Your task to perform on an android device: turn notification dots on Image 0: 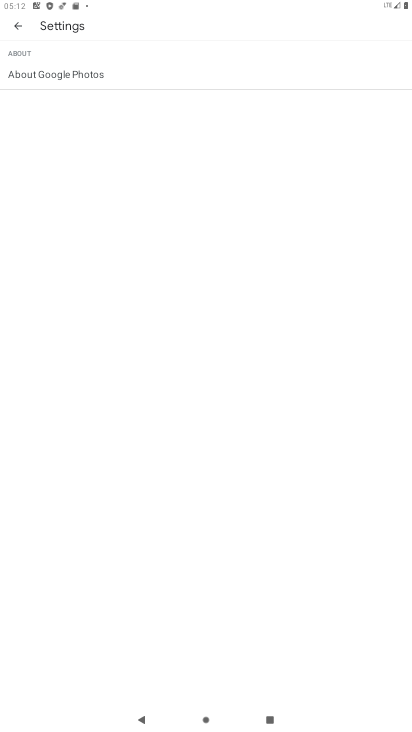
Step 0: press home button
Your task to perform on an android device: turn notification dots on Image 1: 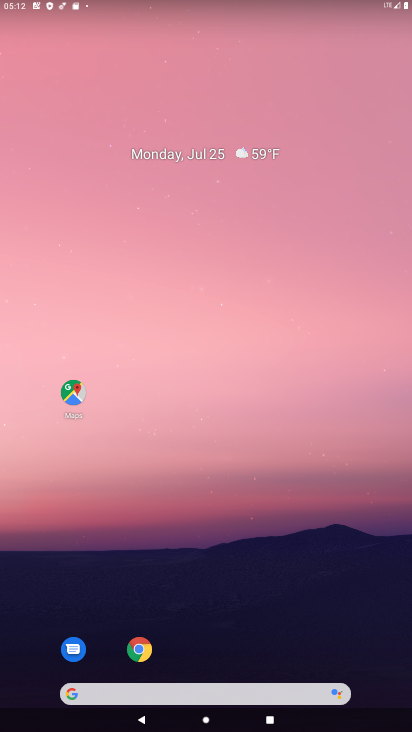
Step 1: drag from (294, 483) to (267, 16)
Your task to perform on an android device: turn notification dots on Image 2: 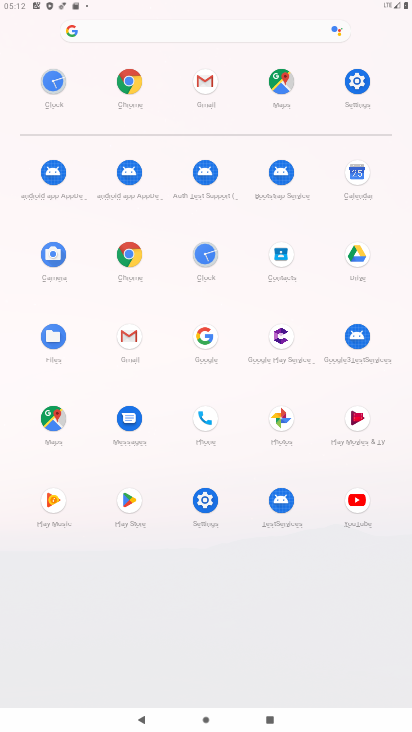
Step 2: click (353, 79)
Your task to perform on an android device: turn notification dots on Image 3: 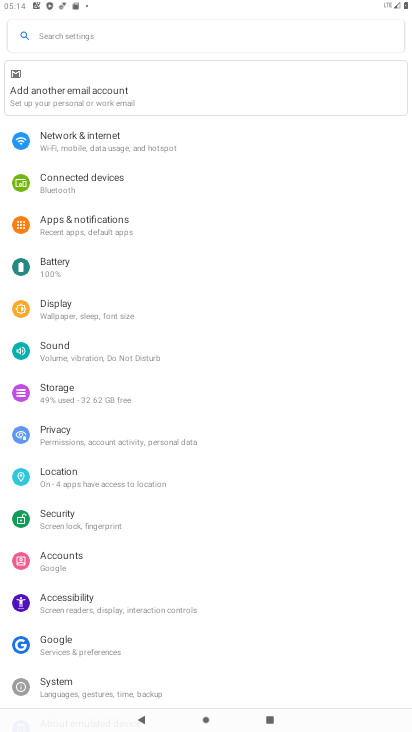
Step 3: click (100, 225)
Your task to perform on an android device: turn notification dots on Image 4: 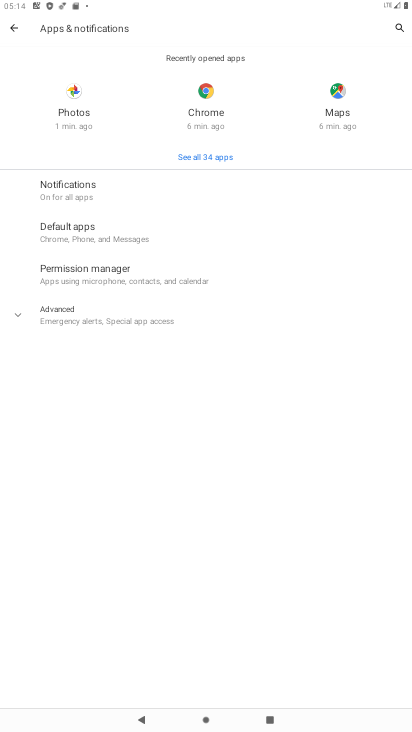
Step 4: press home button
Your task to perform on an android device: turn notification dots on Image 5: 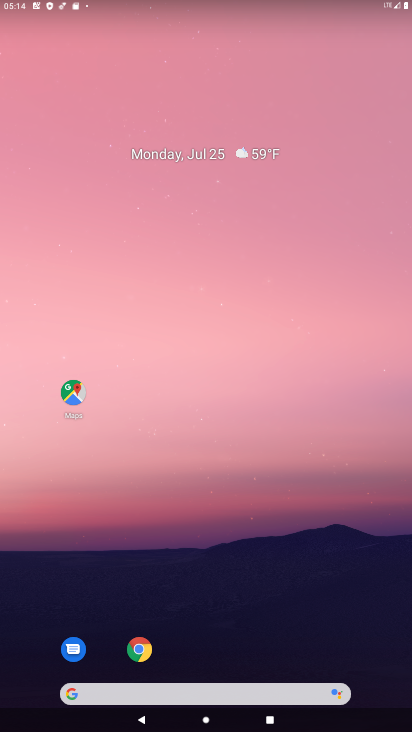
Step 5: drag from (218, 581) to (137, 0)
Your task to perform on an android device: turn notification dots on Image 6: 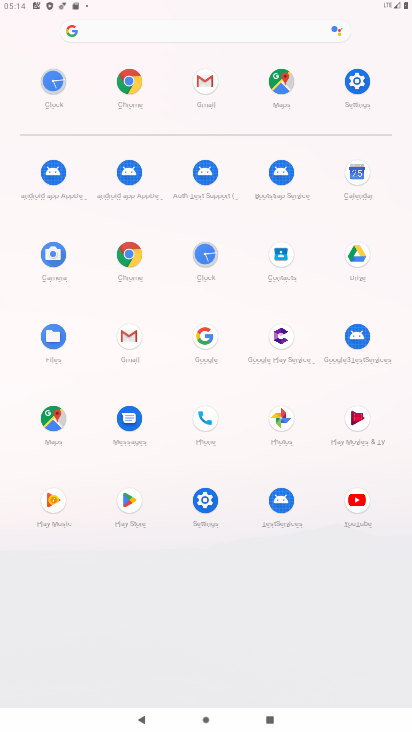
Step 6: click (351, 81)
Your task to perform on an android device: turn notification dots on Image 7: 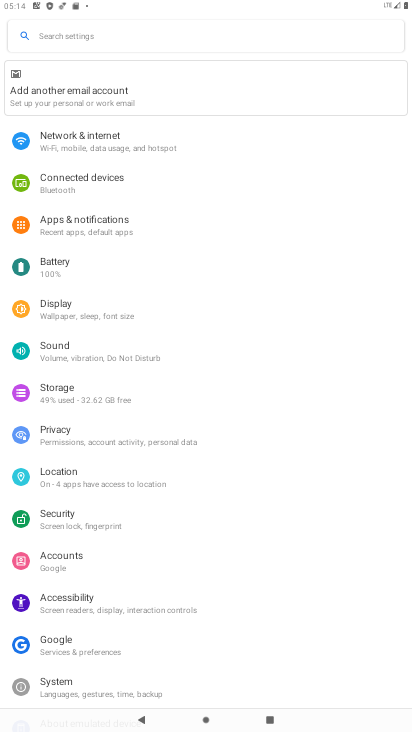
Step 7: click (127, 229)
Your task to perform on an android device: turn notification dots on Image 8: 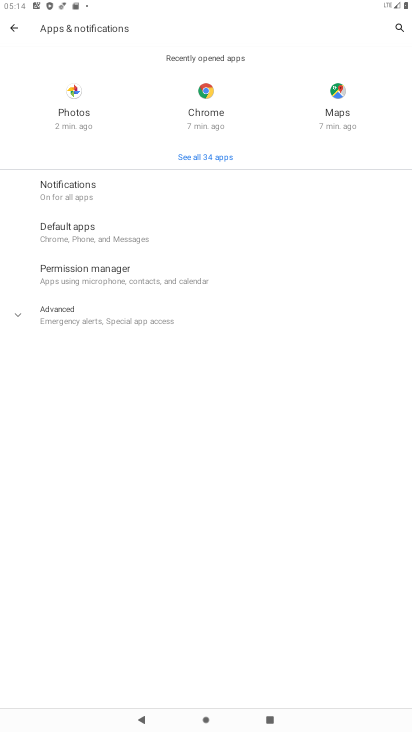
Step 8: click (72, 194)
Your task to perform on an android device: turn notification dots on Image 9: 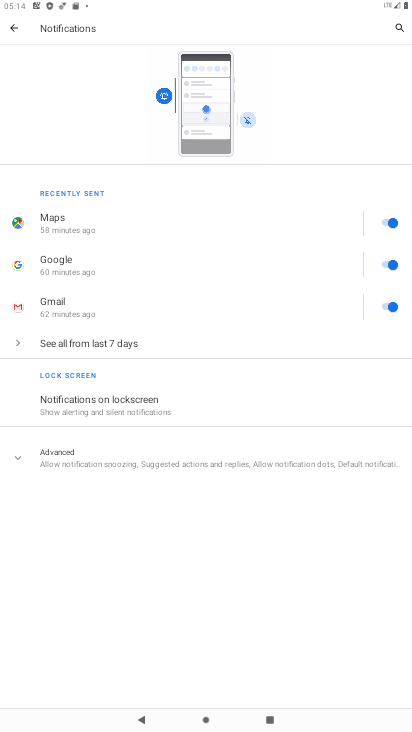
Step 9: click (88, 461)
Your task to perform on an android device: turn notification dots on Image 10: 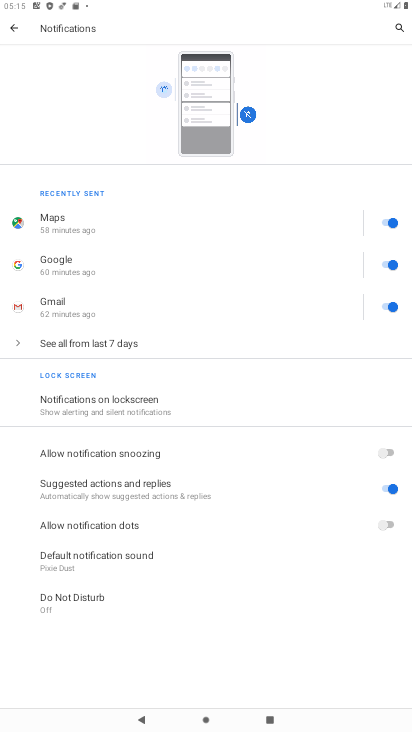
Step 10: click (386, 524)
Your task to perform on an android device: turn notification dots on Image 11: 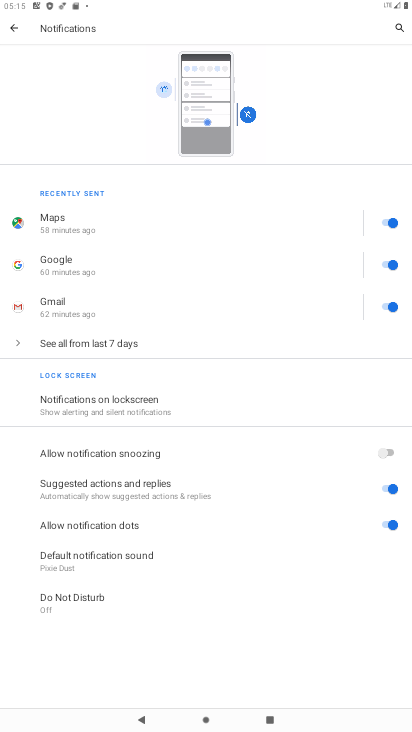
Step 11: task complete